Your task to perform on an android device: Check the weather Image 0: 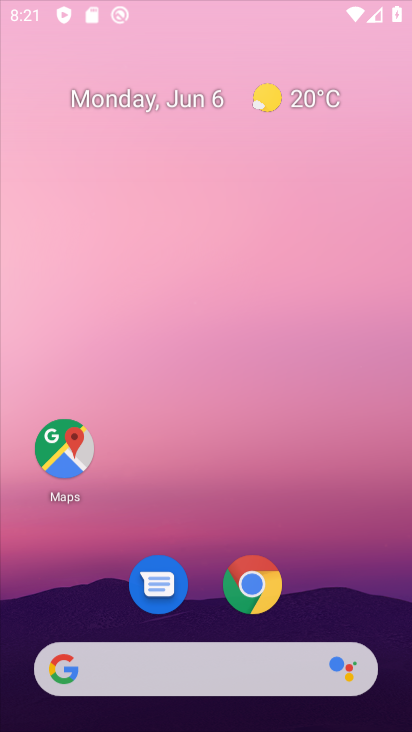
Step 0: drag from (215, 591) to (219, 129)
Your task to perform on an android device: Check the weather Image 1: 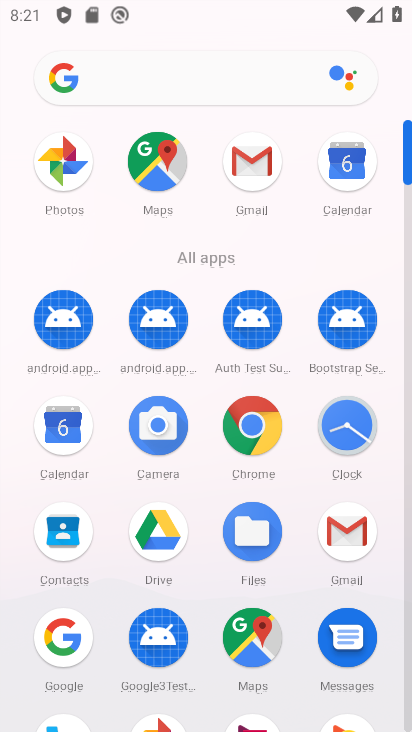
Step 1: drag from (218, 612) to (235, 214)
Your task to perform on an android device: Check the weather Image 2: 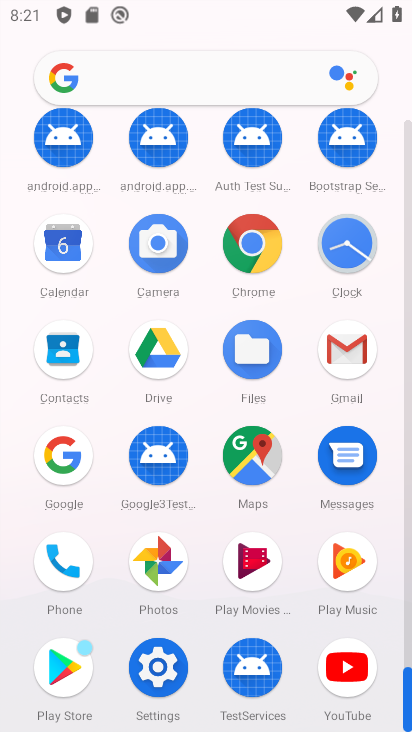
Step 2: click (51, 448)
Your task to perform on an android device: Check the weather Image 3: 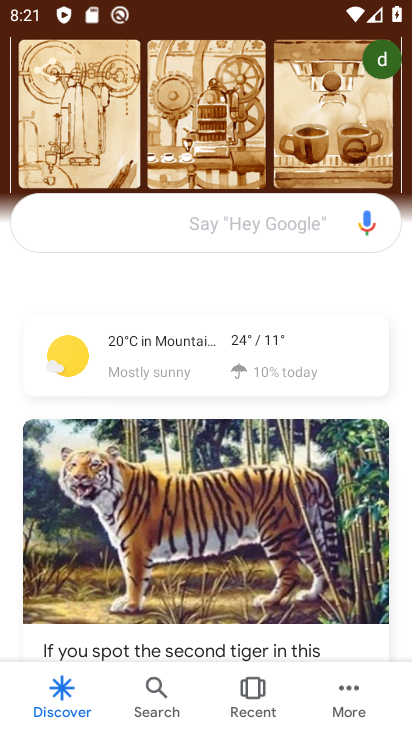
Step 3: click (79, 360)
Your task to perform on an android device: Check the weather Image 4: 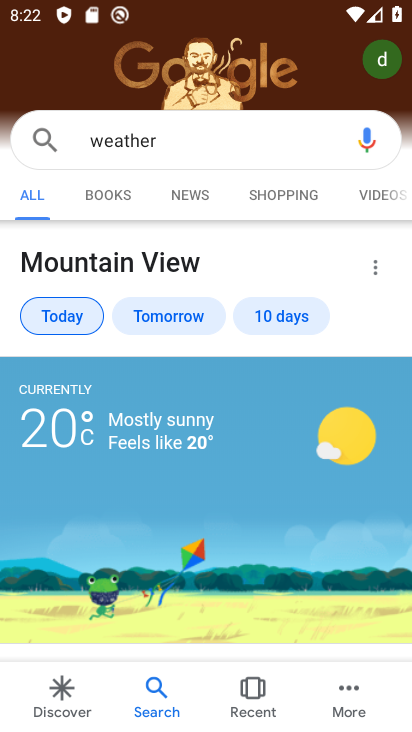
Step 4: task complete